Your task to perform on an android device: Go to location settings Image 0: 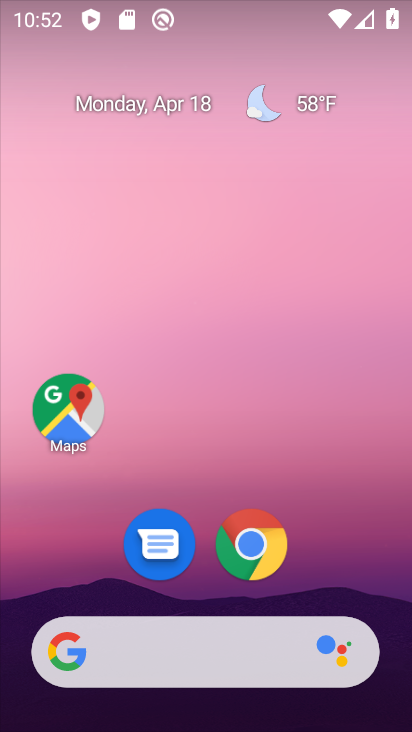
Step 0: drag from (203, 476) to (215, 7)
Your task to perform on an android device: Go to location settings Image 1: 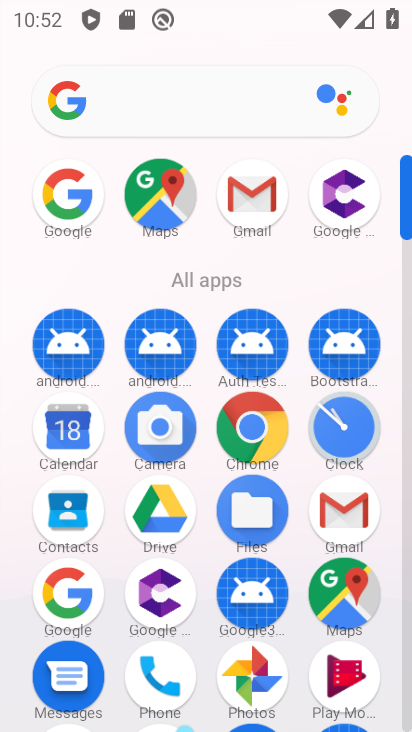
Step 1: drag from (198, 568) to (273, 249)
Your task to perform on an android device: Go to location settings Image 2: 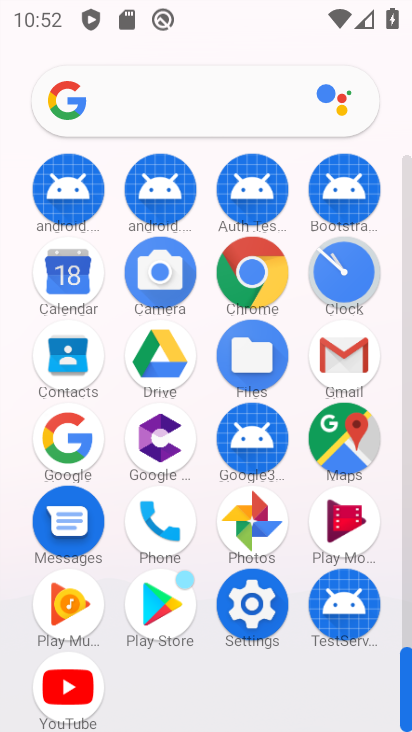
Step 2: click (255, 603)
Your task to perform on an android device: Go to location settings Image 3: 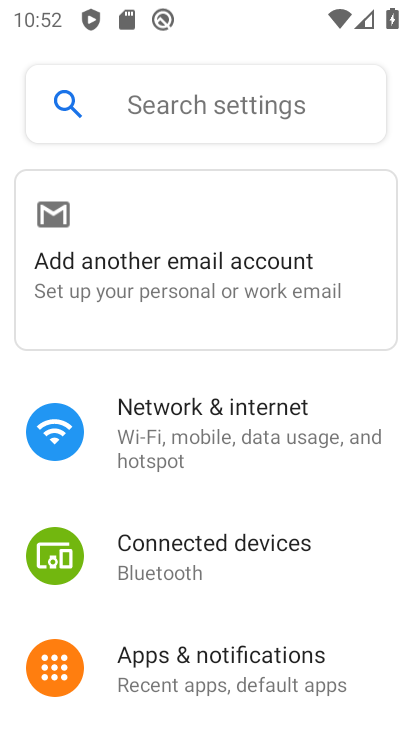
Step 3: drag from (173, 504) to (171, 381)
Your task to perform on an android device: Go to location settings Image 4: 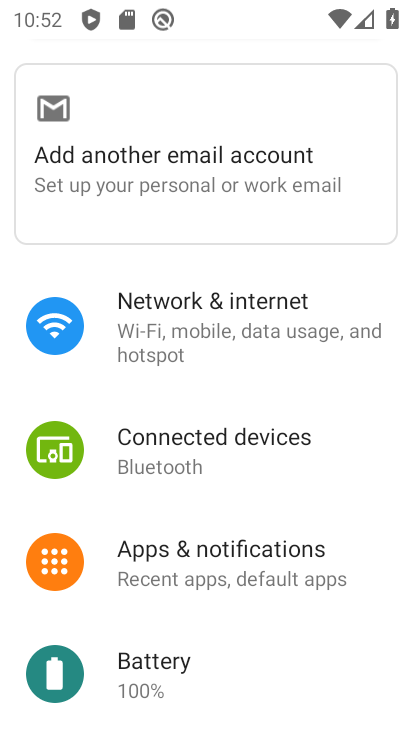
Step 4: drag from (214, 598) to (255, 486)
Your task to perform on an android device: Go to location settings Image 5: 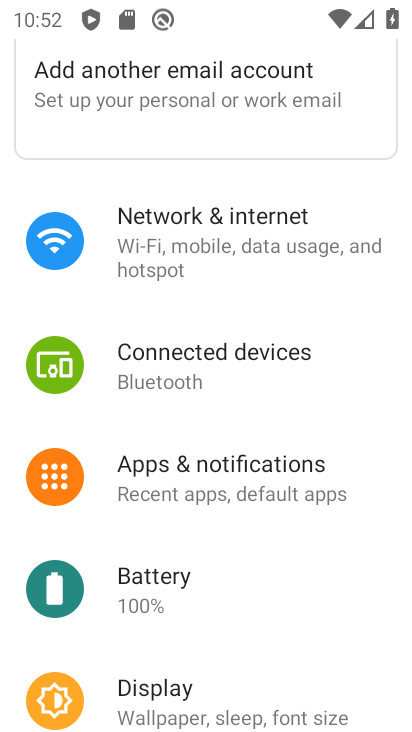
Step 5: drag from (243, 642) to (273, 490)
Your task to perform on an android device: Go to location settings Image 6: 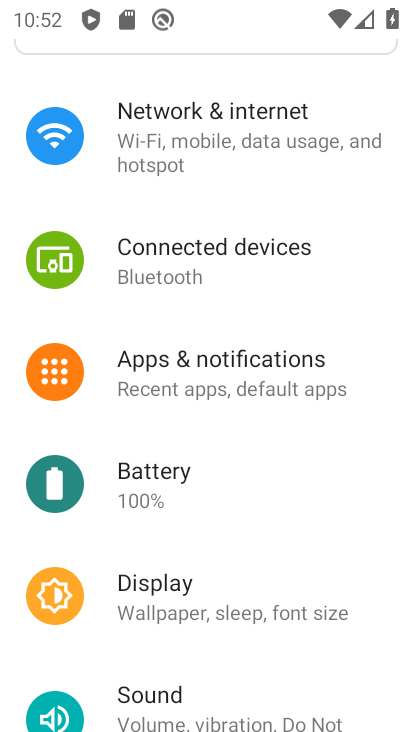
Step 6: drag from (226, 644) to (266, 521)
Your task to perform on an android device: Go to location settings Image 7: 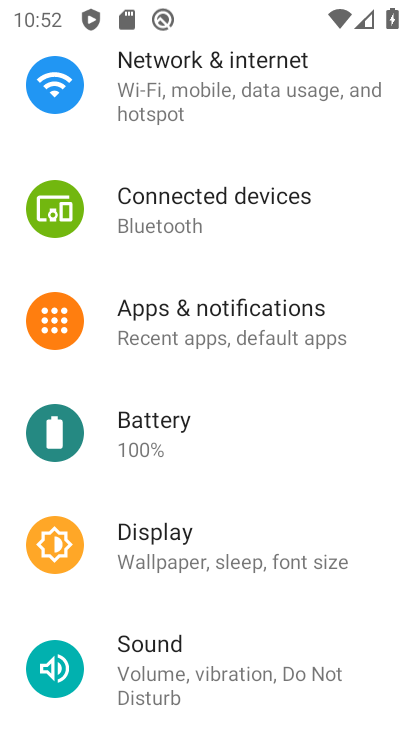
Step 7: drag from (253, 607) to (274, 484)
Your task to perform on an android device: Go to location settings Image 8: 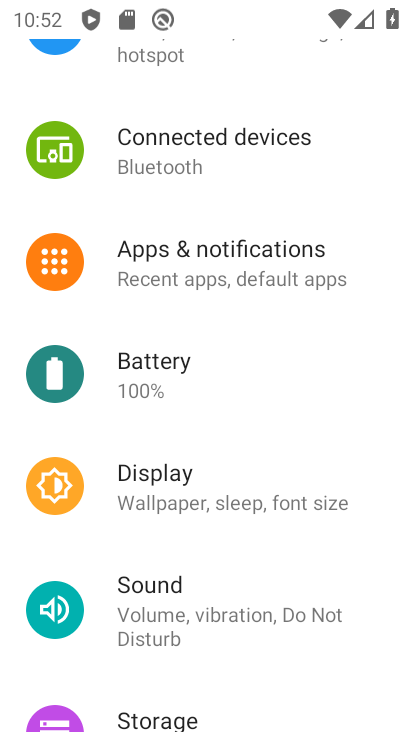
Step 8: drag from (238, 628) to (259, 524)
Your task to perform on an android device: Go to location settings Image 9: 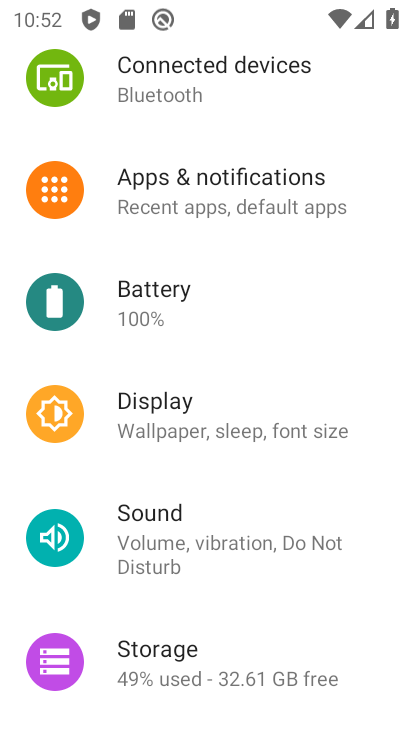
Step 9: drag from (218, 590) to (233, 505)
Your task to perform on an android device: Go to location settings Image 10: 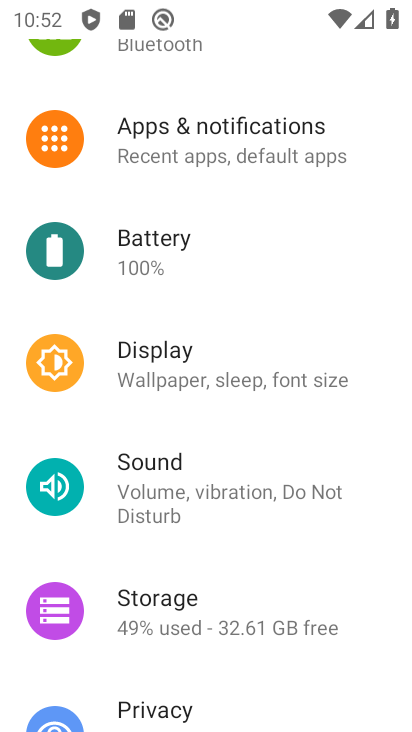
Step 10: drag from (235, 583) to (270, 510)
Your task to perform on an android device: Go to location settings Image 11: 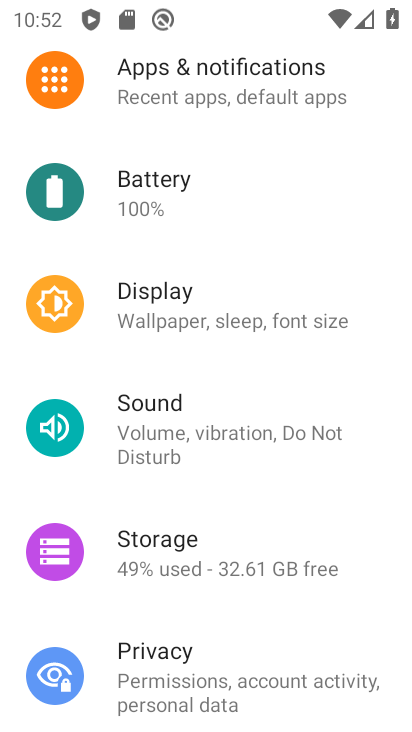
Step 11: drag from (230, 627) to (263, 526)
Your task to perform on an android device: Go to location settings Image 12: 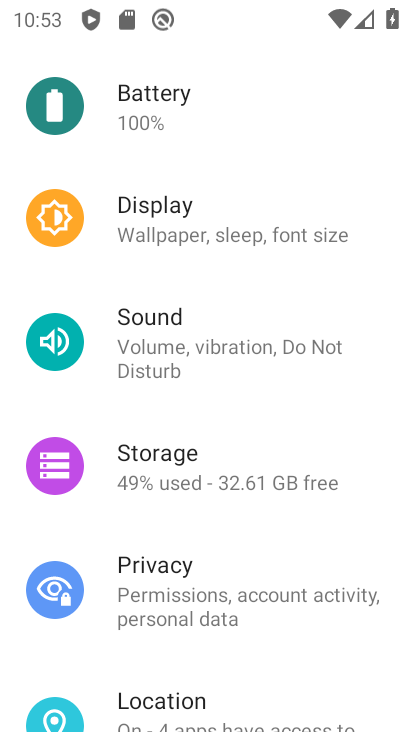
Step 12: drag from (233, 659) to (265, 556)
Your task to perform on an android device: Go to location settings Image 13: 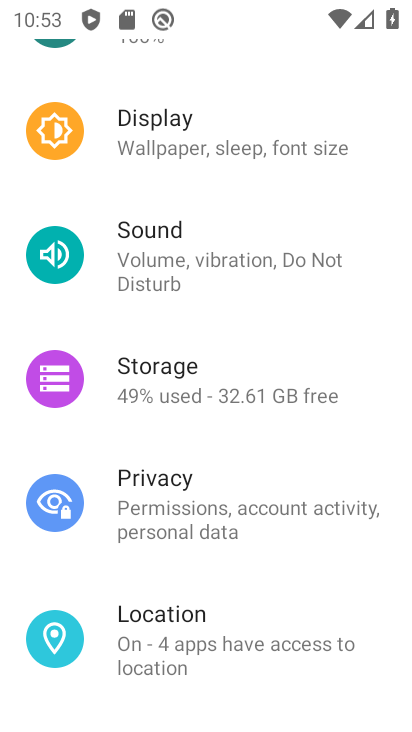
Step 13: click (176, 622)
Your task to perform on an android device: Go to location settings Image 14: 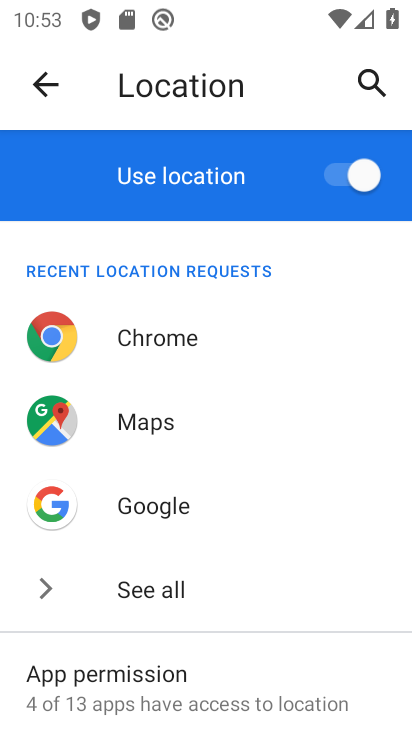
Step 14: task complete